Your task to perform on an android device: check google app version Image 0: 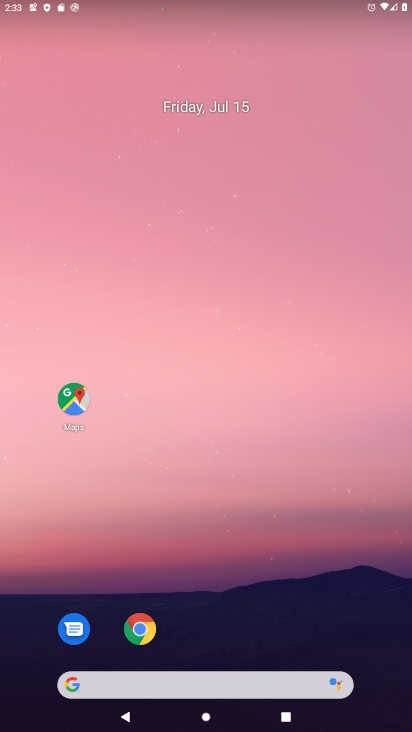
Step 0: drag from (304, 599) to (252, 170)
Your task to perform on an android device: check google app version Image 1: 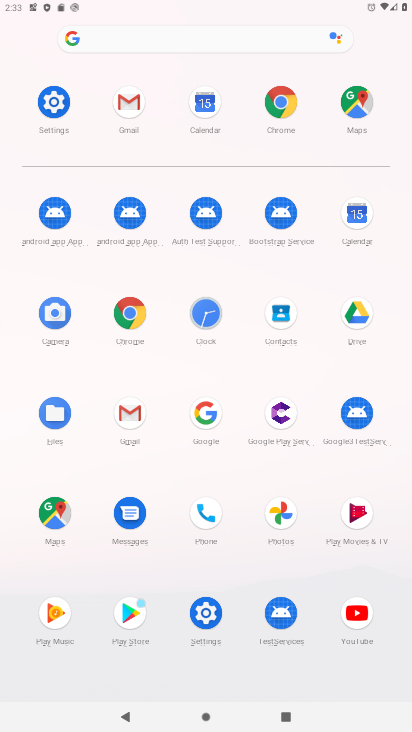
Step 1: click (208, 424)
Your task to perform on an android device: check google app version Image 2: 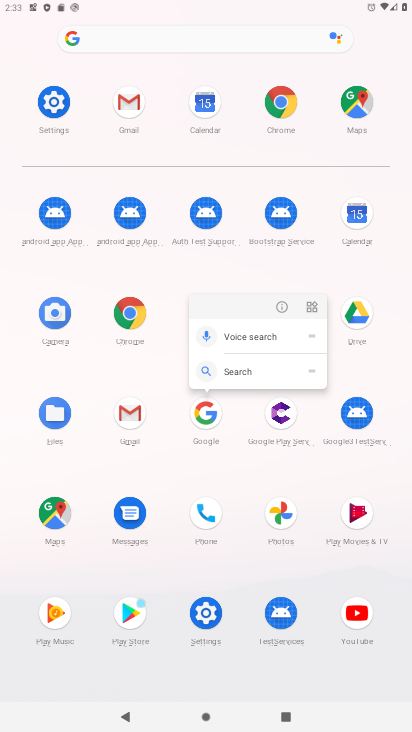
Step 2: click (273, 311)
Your task to perform on an android device: check google app version Image 3: 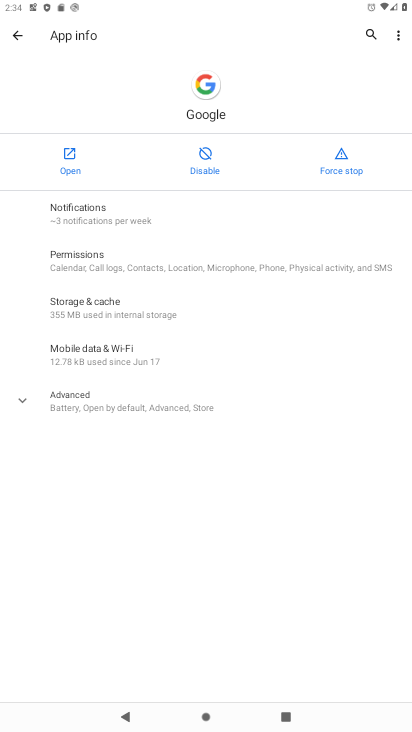
Step 3: drag from (228, 518) to (242, 410)
Your task to perform on an android device: check google app version Image 4: 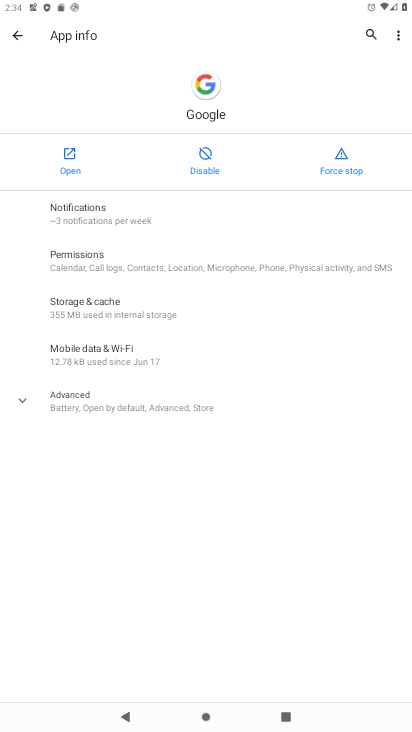
Step 4: click (152, 391)
Your task to perform on an android device: check google app version Image 5: 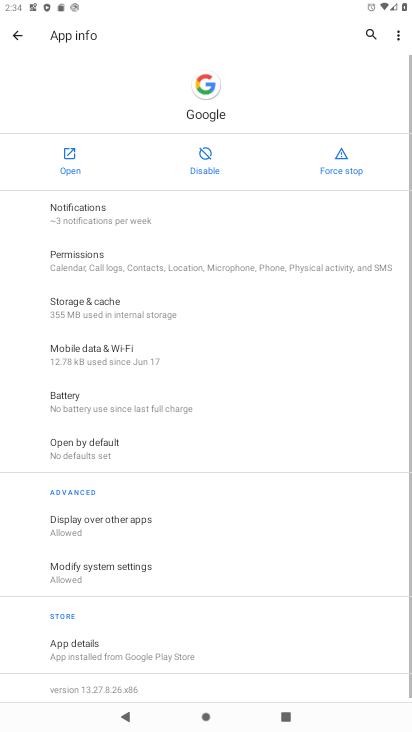
Step 5: task complete